Your task to perform on an android device: turn on data saver in the chrome app Image 0: 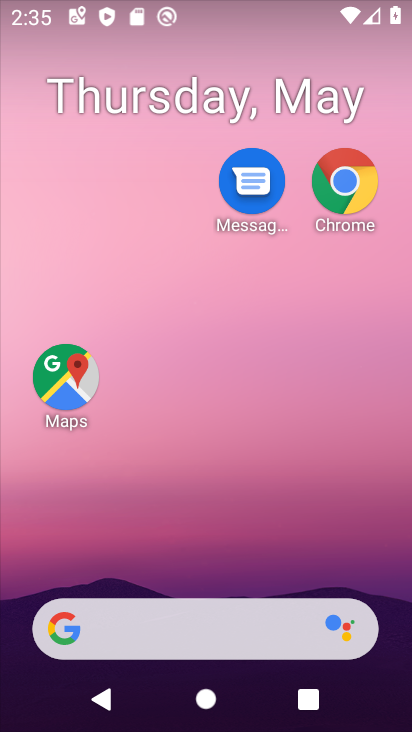
Step 0: drag from (301, 615) to (296, 6)
Your task to perform on an android device: turn on data saver in the chrome app Image 1: 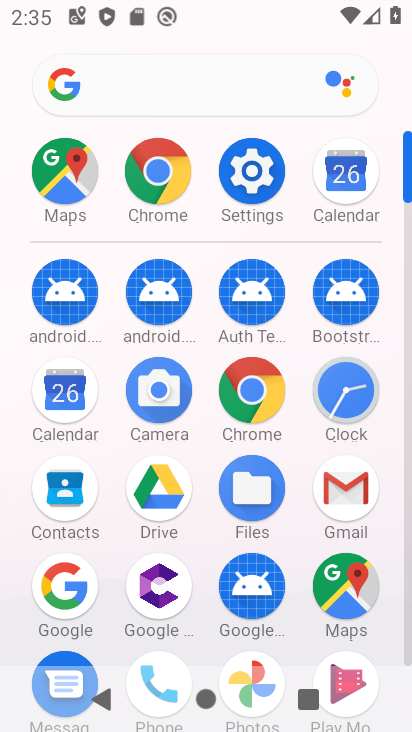
Step 1: click (263, 384)
Your task to perform on an android device: turn on data saver in the chrome app Image 2: 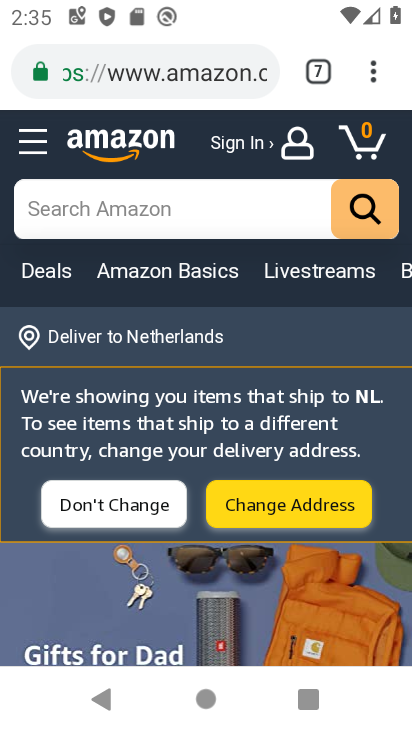
Step 2: drag from (380, 69) to (174, 435)
Your task to perform on an android device: turn on data saver in the chrome app Image 3: 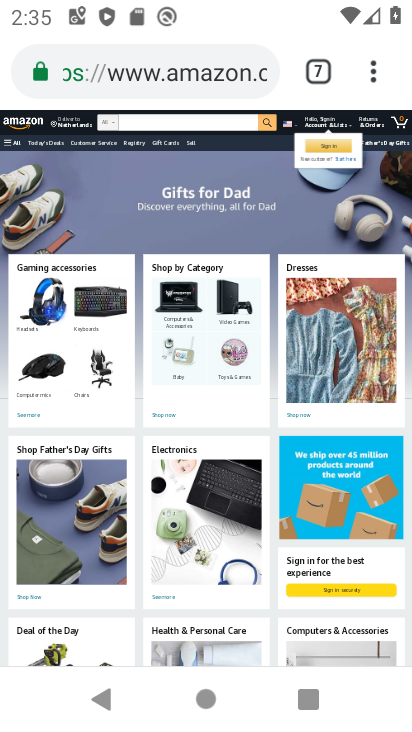
Step 3: drag from (380, 62) to (205, 511)
Your task to perform on an android device: turn on data saver in the chrome app Image 4: 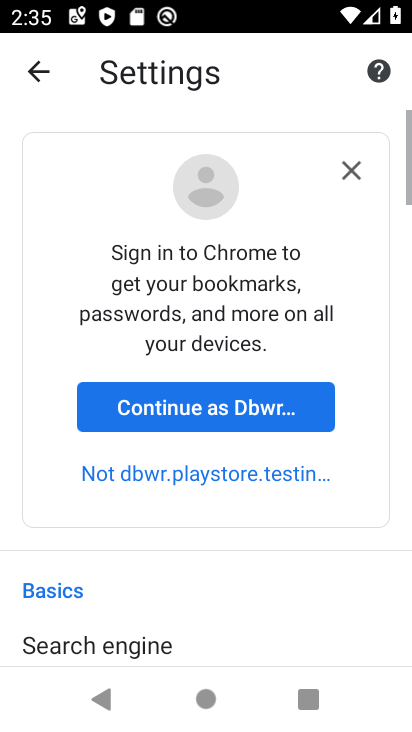
Step 4: drag from (198, 546) to (412, 518)
Your task to perform on an android device: turn on data saver in the chrome app Image 5: 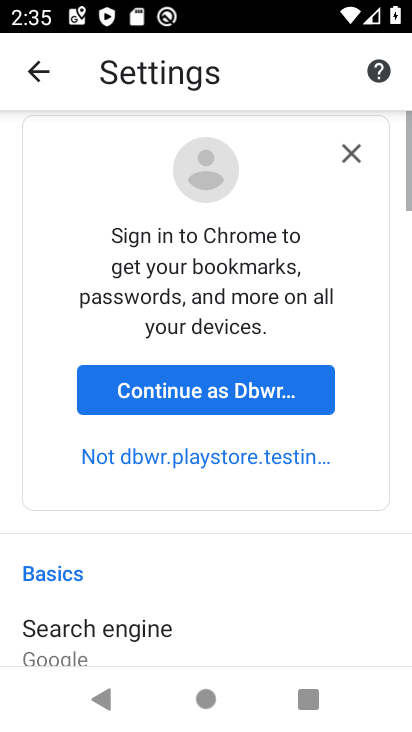
Step 5: drag from (265, 593) to (326, 107)
Your task to perform on an android device: turn on data saver in the chrome app Image 6: 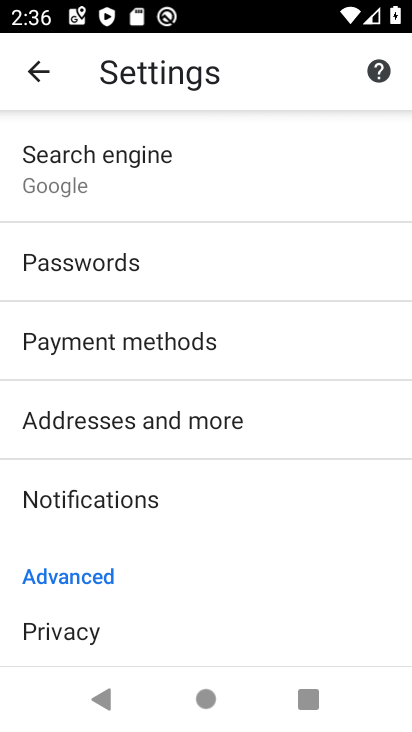
Step 6: drag from (238, 578) to (287, 98)
Your task to perform on an android device: turn on data saver in the chrome app Image 7: 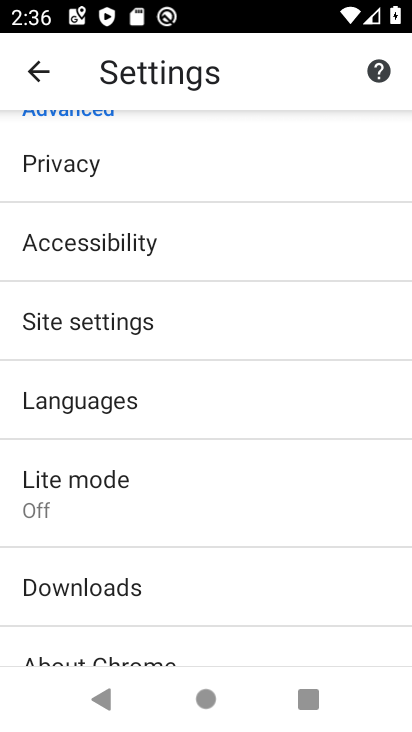
Step 7: click (118, 484)
Your task to perform on an android device: turn on data saver in the chrome app Image 8: 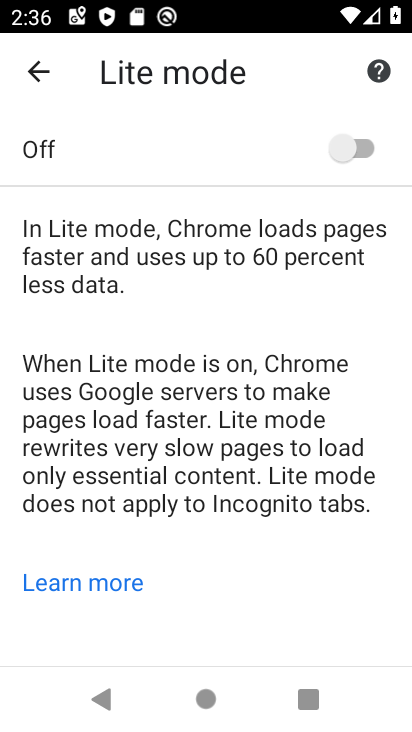
Step 8: click (375, 144)
Your task to perform on an android device: turn on data saver in the chrome app Image 9: 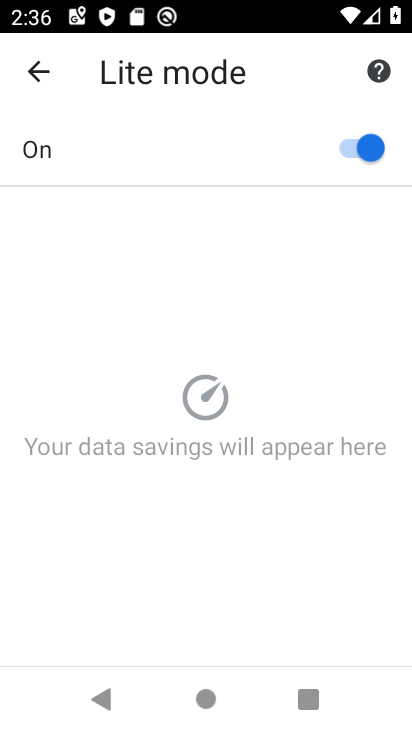
Step 9: task complete